Your task to perform on an android device: open chrome and create a bookmark for the current page Image 0: 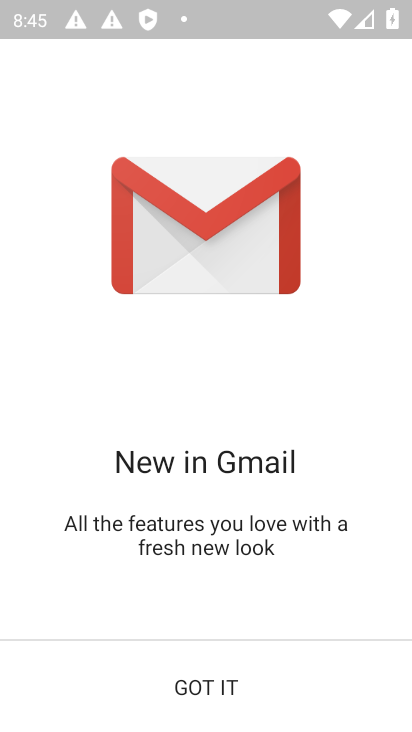
Step 0: click (215, 676)
Your task to perform on an android device: open chrome and create a bookmark for the current page Image 1: 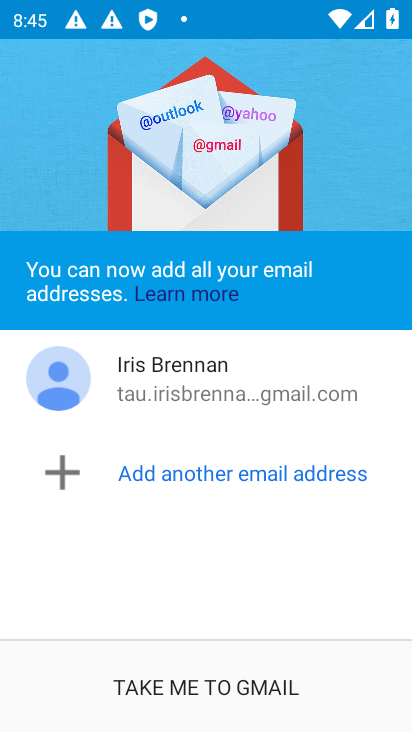
Step 1: press home button
Your task to perform on an android device: open chrome and create a bookmark for the current page Image 2: 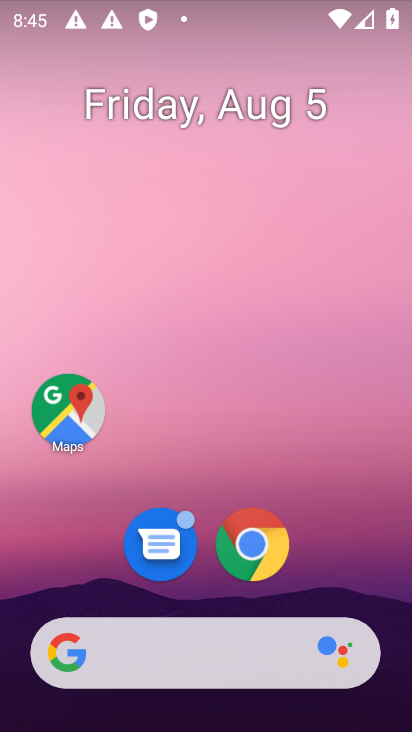
Step 2: click (275, 549)
Your task to perform on an android device: open chrome and create a bookmark for the current page Image 3: 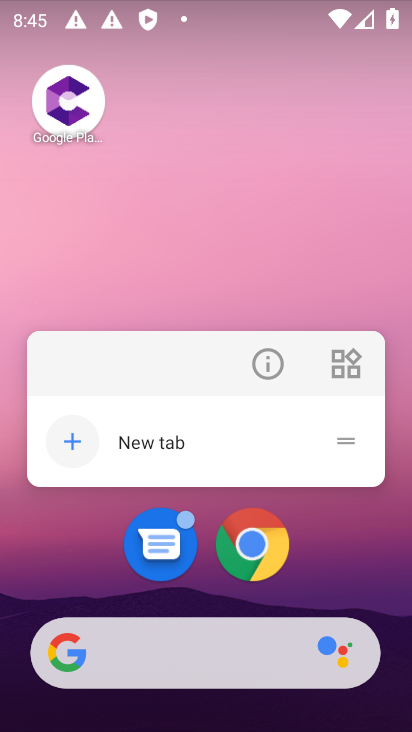
Step 3: click (275, 549)
Your task to perform on an android device: open chrome and create a bookmark for the current page Image 4: 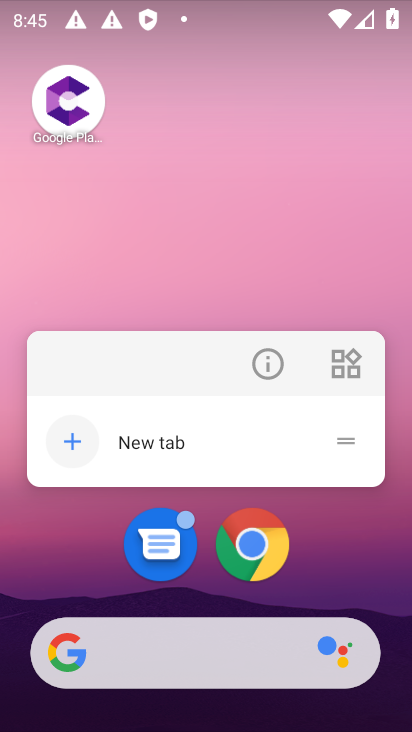
Step 4: click (275, 549)
Your task to perform on an android device: open chrome and create a bookmark for the current page Image 5: 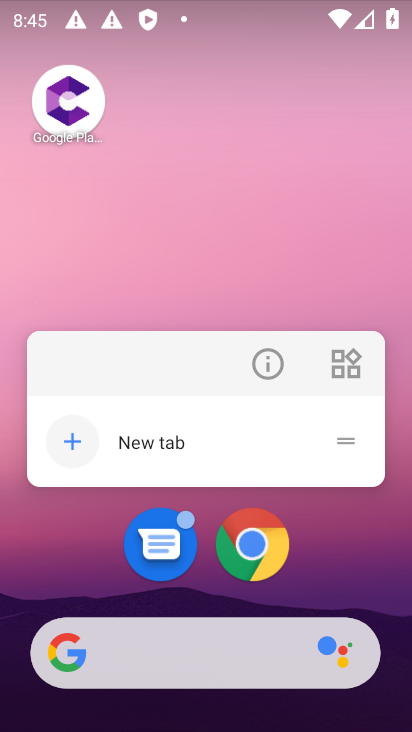
Step 5: click (275, 549)
Your task to perform on an android device: open chrome and create a bookmark for the current page Image 6: 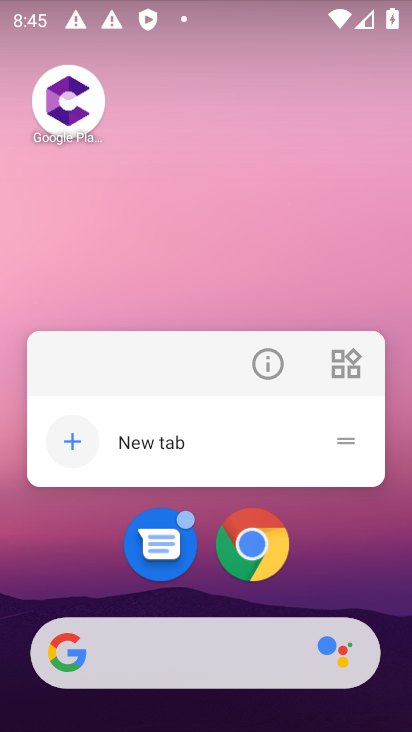
Step 6: click (275, 547)
Your task to perform on an android device: open chrome and create a bookmark for the current page Image 7: 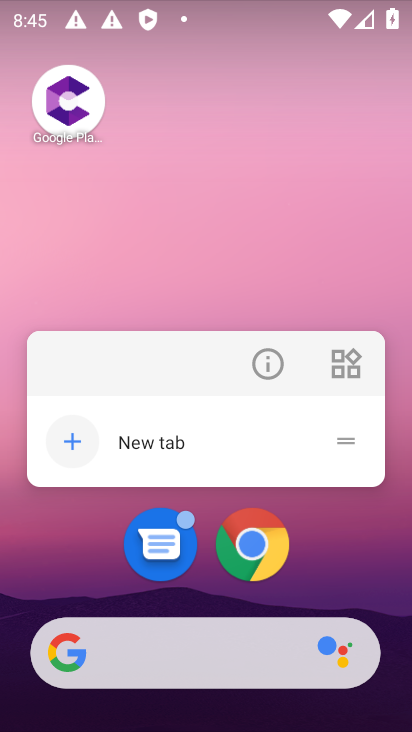
Step 7: click (266, 546)
Your task to perform on an android device: open chrome and create a bookmark for the current page Image 8: 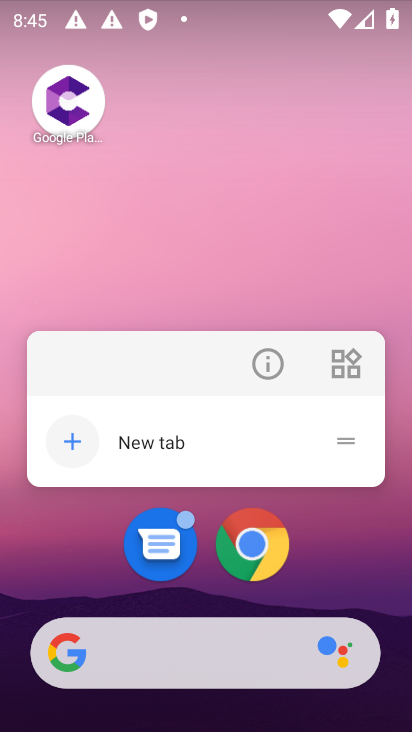
Step 8: click (253, 548)
Your task to perform on an android device: open chrome and create a bookmark for the current page Image 9: 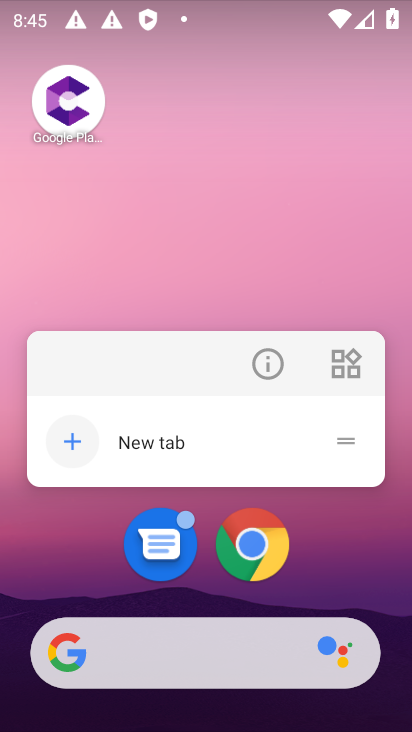
Step 9: click (253, 550)
Your task to perform on an android device: open chrome and create a bookmark for the current page Image 10: 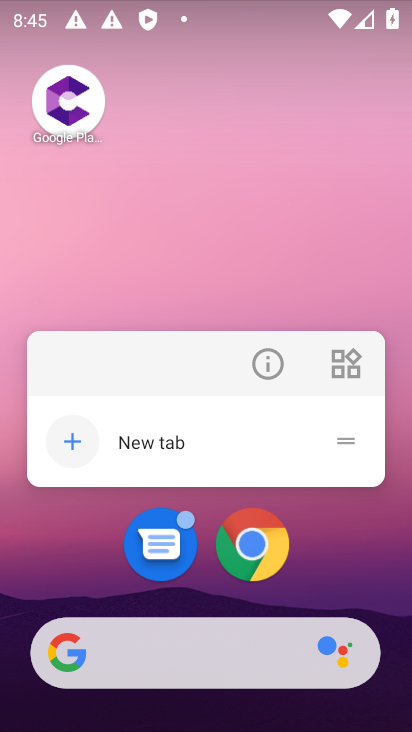
Step 10: click (253, 550)
Your task to perform on an android device: open chrome and create a bookmark for the current page Image 11: 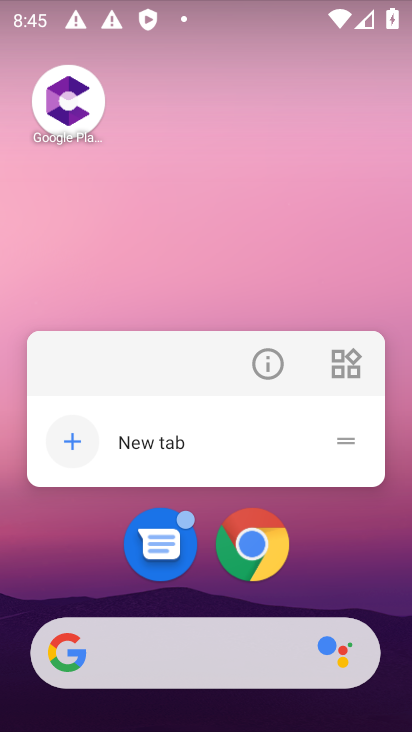
Step 11: click (253, 550)
Your task to perform on an android device: open chrome and create a bookmark for the current page Image 12: 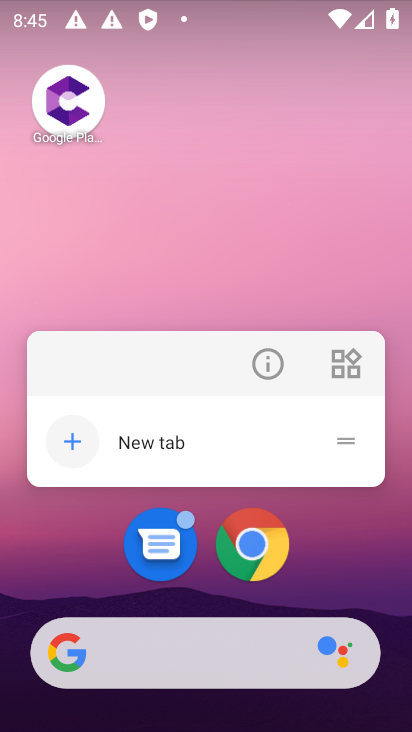
Step 12: click (253, 550)
Your task to perform on an android device: open chrome and create a bookmark for the current page Image 13: 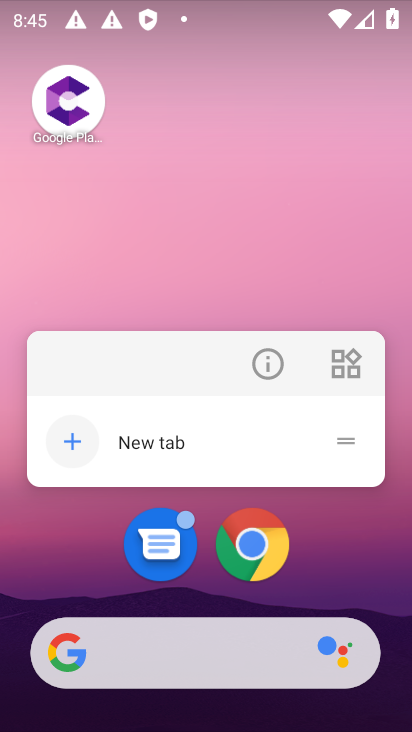
Step 13: click (253, 548)
Your task to perform on an android device: open chrome and create a bookmark for the current page Image 14: 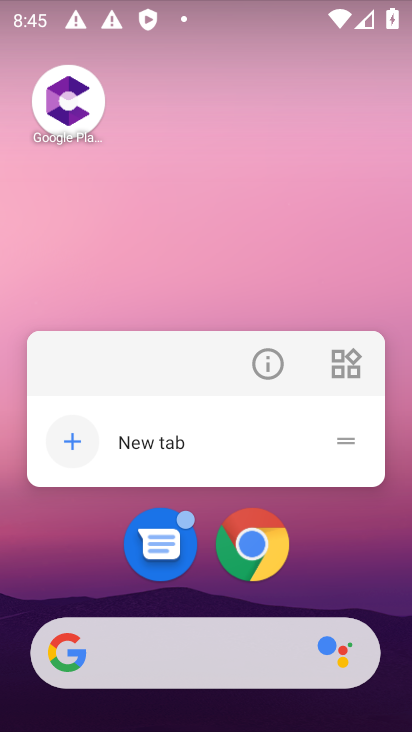
Step 14: click (253, 548)
Your task to perform on an android device: open chrome and create a bookmark for the current page Image 15: 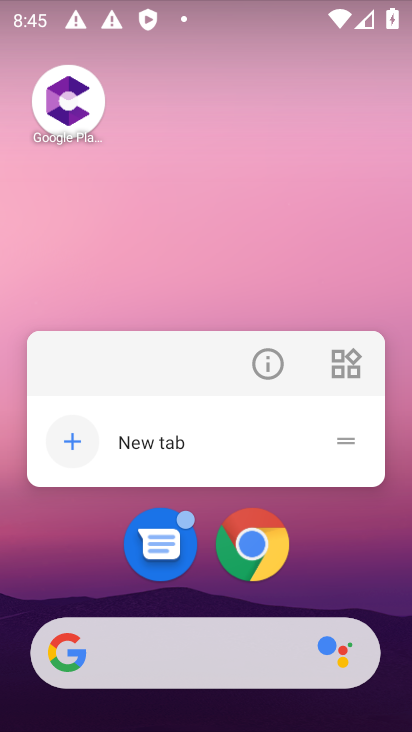
Step 15: click (253, 546)
Your task to perform on an android device: open chrome and create a bookmark for the current page Image 16: 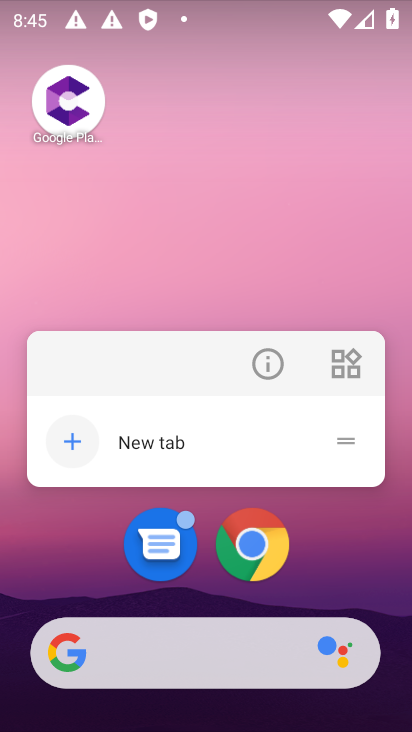
Step 16: click (253, 546)
Your task to perform on an android device: open chrome and create a bookmark for the current page Image 17: 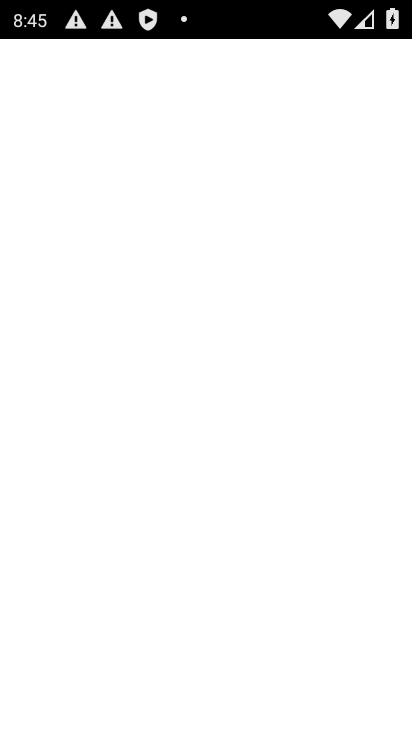
Step 17: click (253, 546)
Your task to perform on an android device: open chrome and create a bookmark for the current page Image 18: 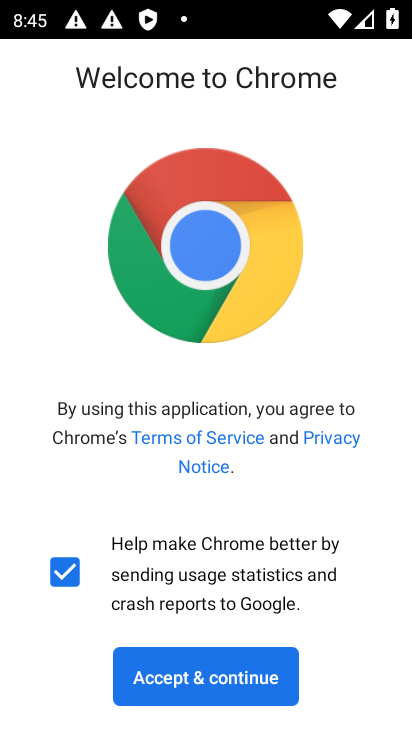
Step 18: click (228, 673)
Your task to perform on an android device: open chrome and create a bookmark for the current page Image 19: 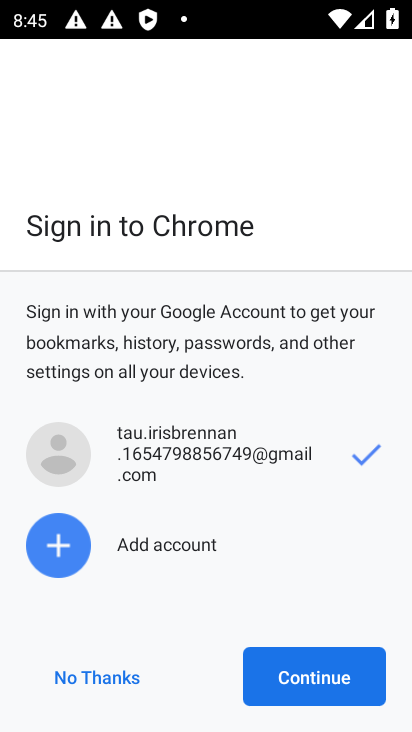
Step 19: click (64, 687)
Your task to perform on an android device: open chrome and create a bookmark for the current page Image 20: 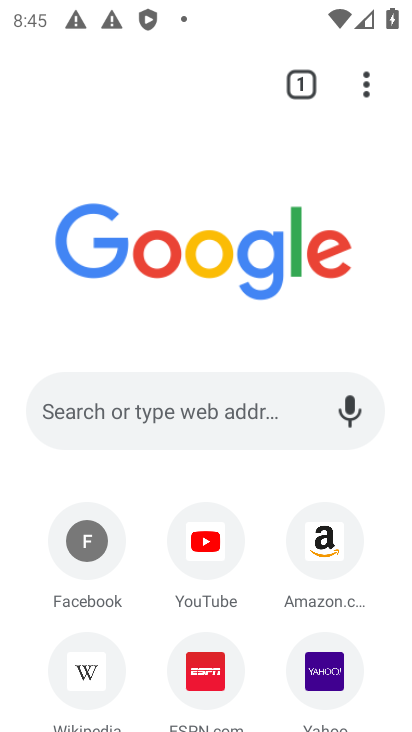
Step 20: task complete